Your task to perform on an android device: install app "File Manager" Image 0: 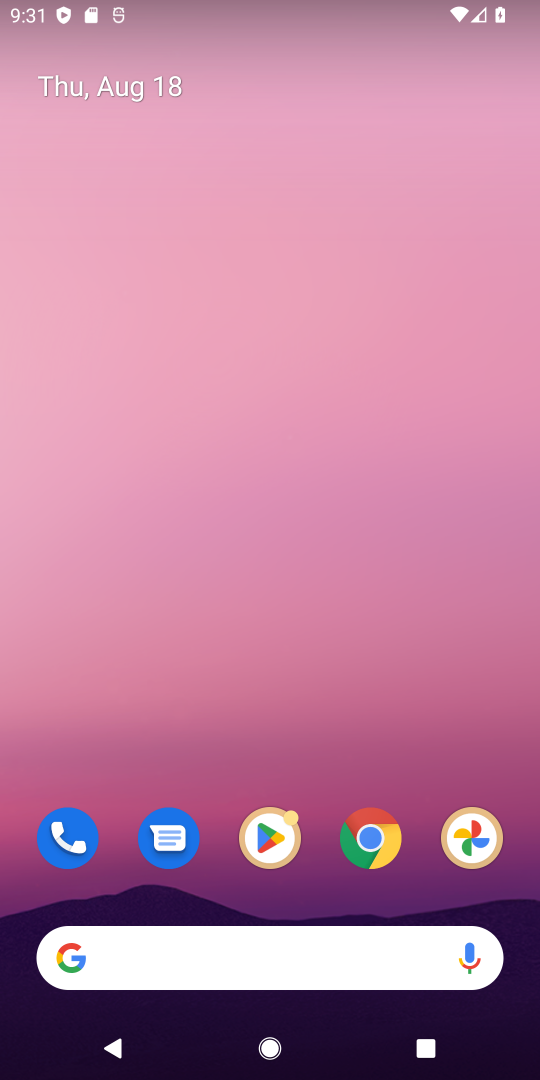
Step 0: click (270, 862)
Your task to perform on an android device: install app "File Manager" Image 1: 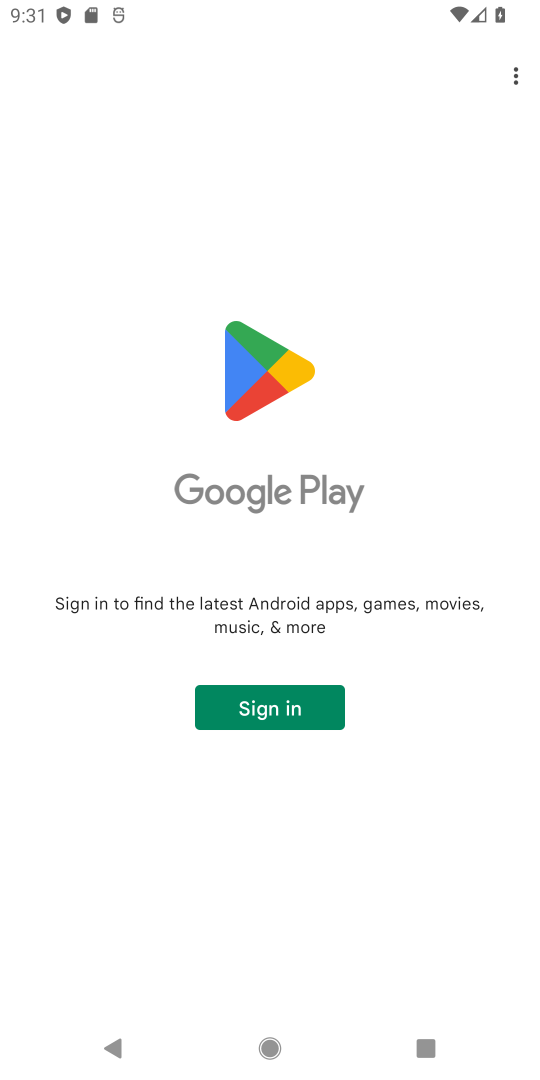
Step 1: click (299, 733)
Your task to perform on an android device: install app "File Manager" Image 2: 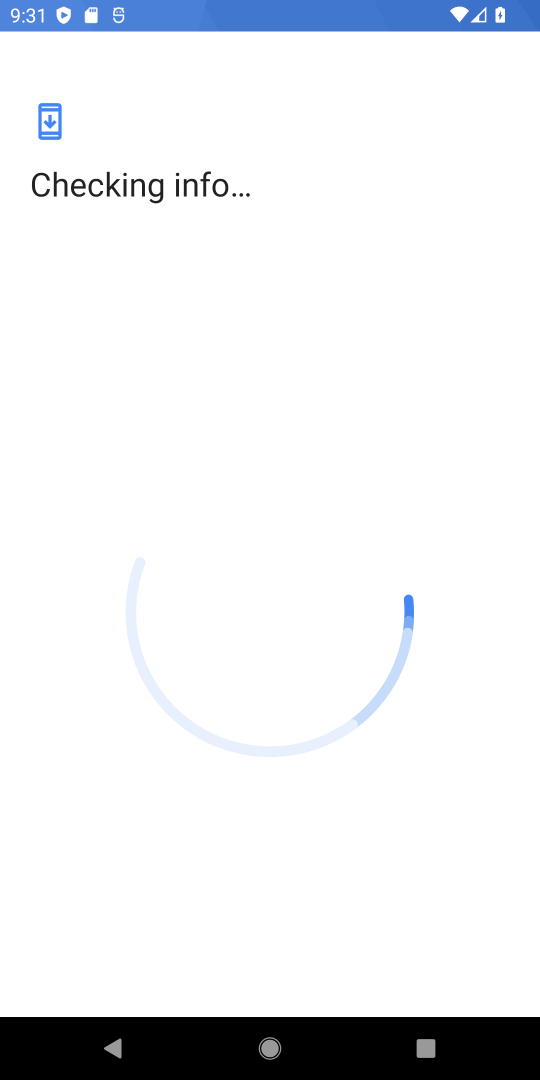
Step 2: task complete